Your task to perform on an android device: Open Google Chrome Image 0: 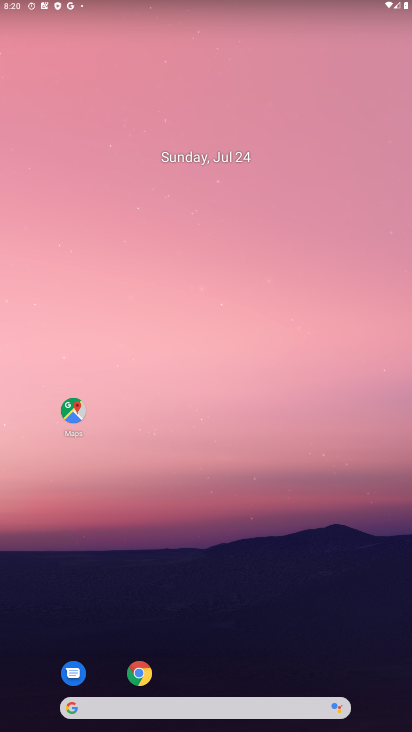
Step 0: click (146, 672)
Your task to perform on an android device: Open Google Chrome Image 1: 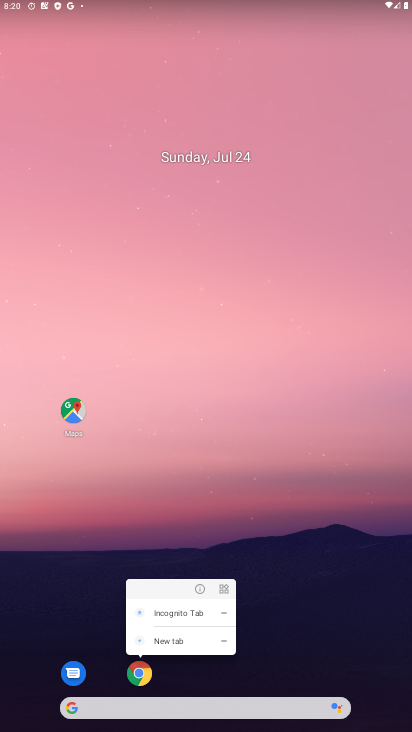
Step 1: click (141, 662)
Your task to perform on an android device: Open Google Chrome Image 2: 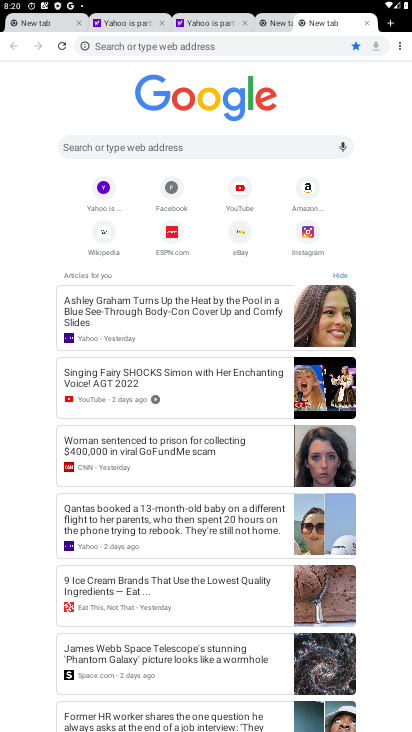
Step 2: task complete